Your task to perform on an android device: Turn off the flashlight Image 0: 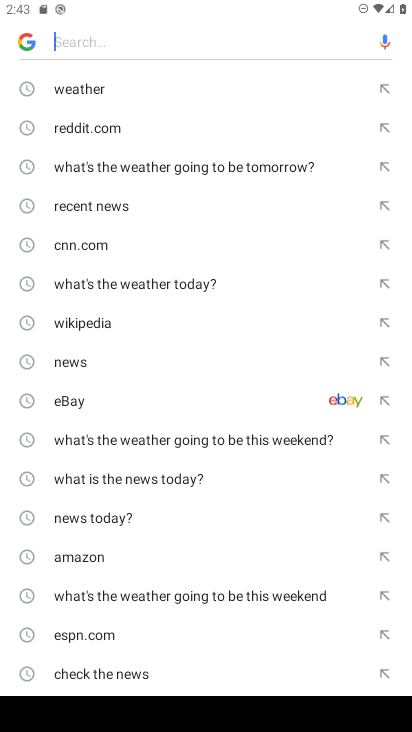
Step 0: press home button
Your task to perform on an android device: Turn off the flashlight Image 1: 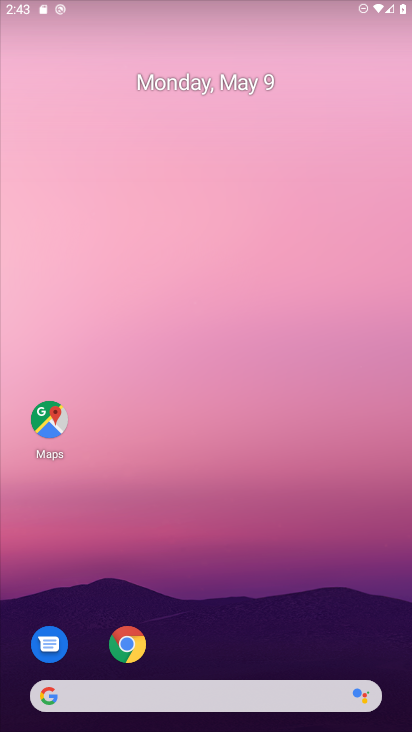
Step 1: task complete